Your task to perform on an android device: Open the web browser Image 0: 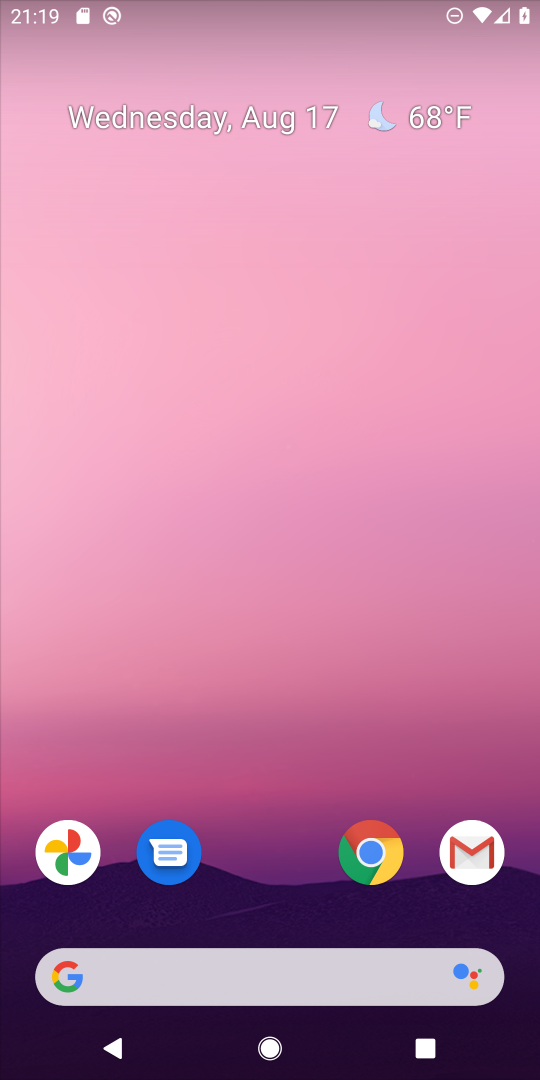
Step 0: click (371, 854)
Your task to perform on an android device: Open the web browser Image 1: 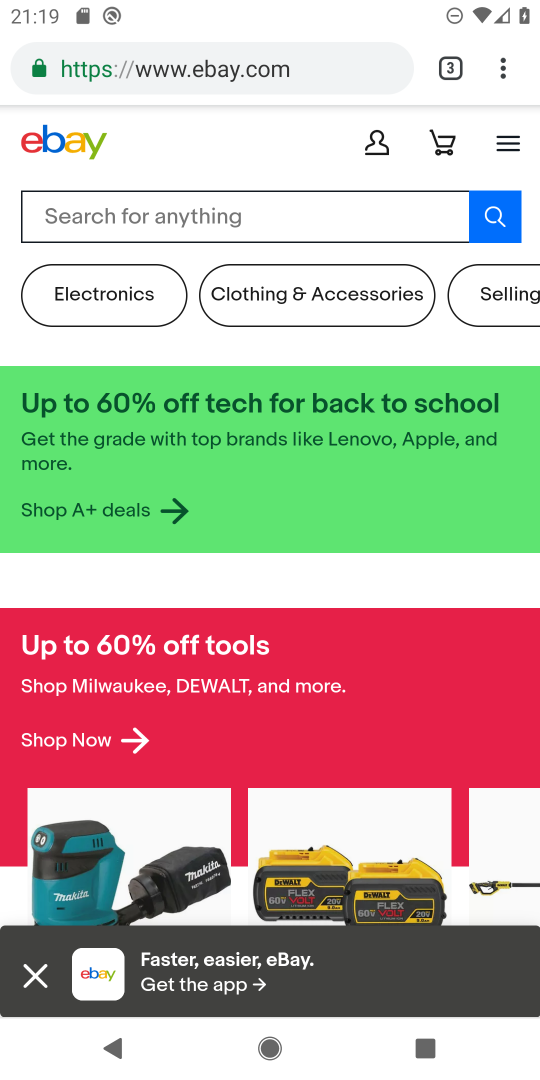
Step 1: task complete